Your task to perform on an android device: Open sound settings Image 0: 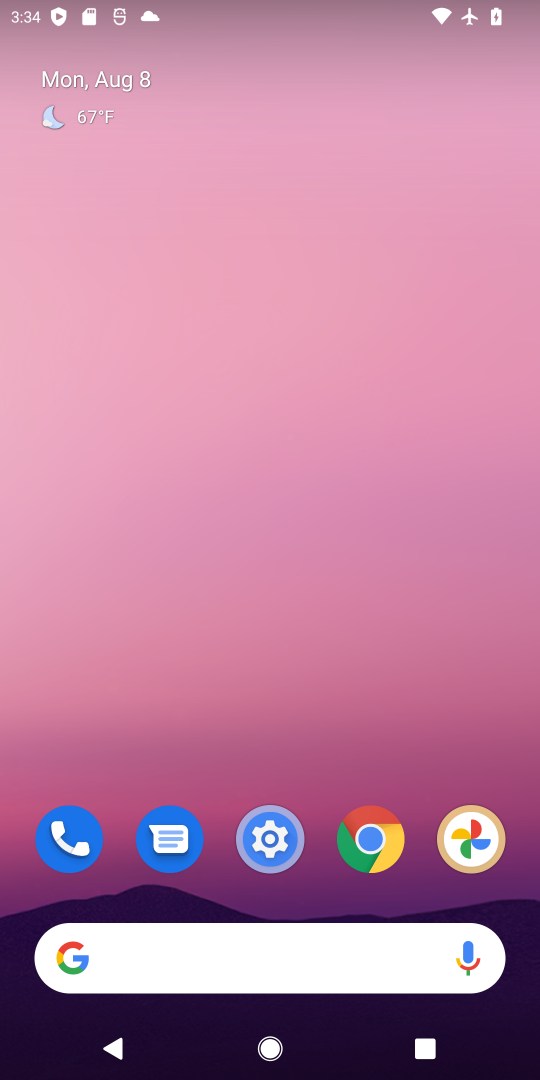
Step 0: press home button
Your task to perform on an android device: Open sound settings Image 1: 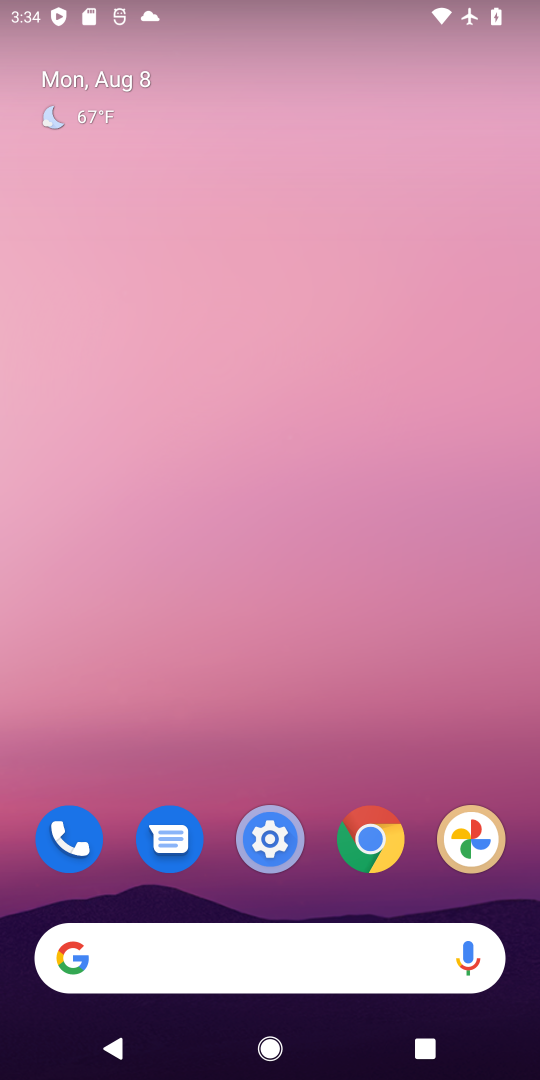
Step 1: drag from (411, 474) to (416, 323)
Your task to perform on an android device: Open sound settings Image 2: 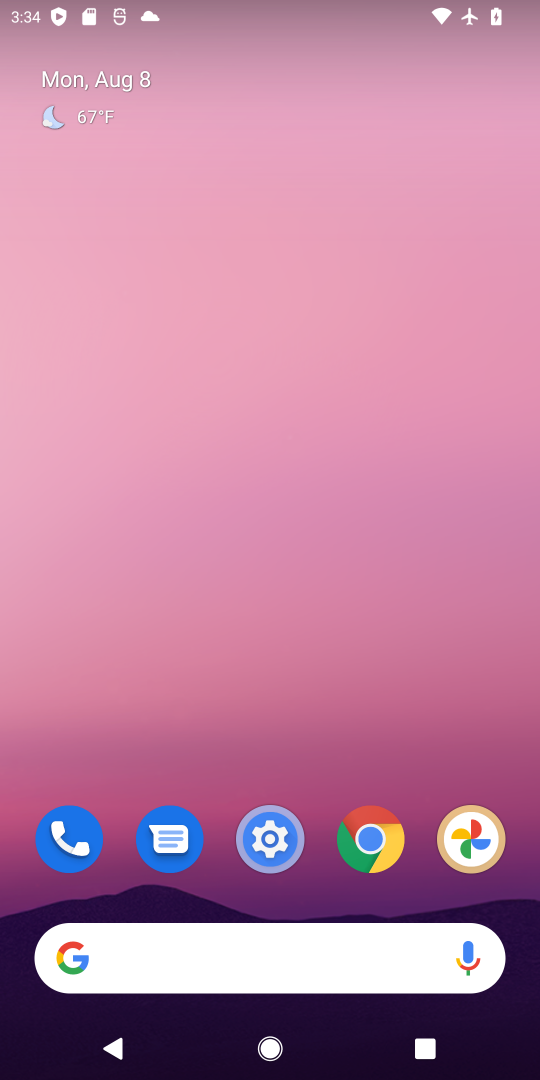
Step 2: drag from (409, 755) to (420, 250)
Your task to perform on an android device: Open sound settings Image 3: 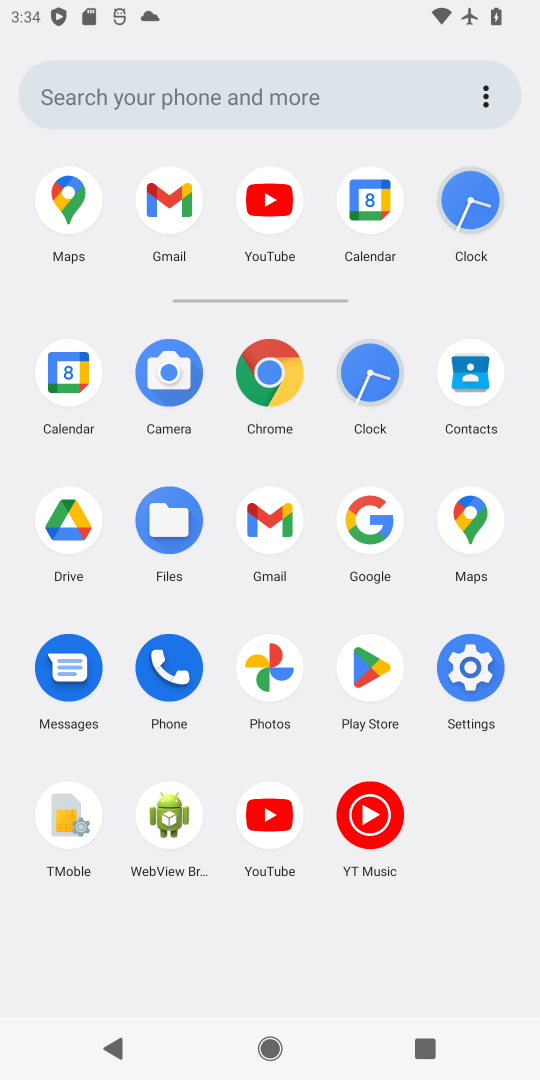
Step 3: click (472, 670)
Your task to perform on an android device: Open sound settings Image 4: 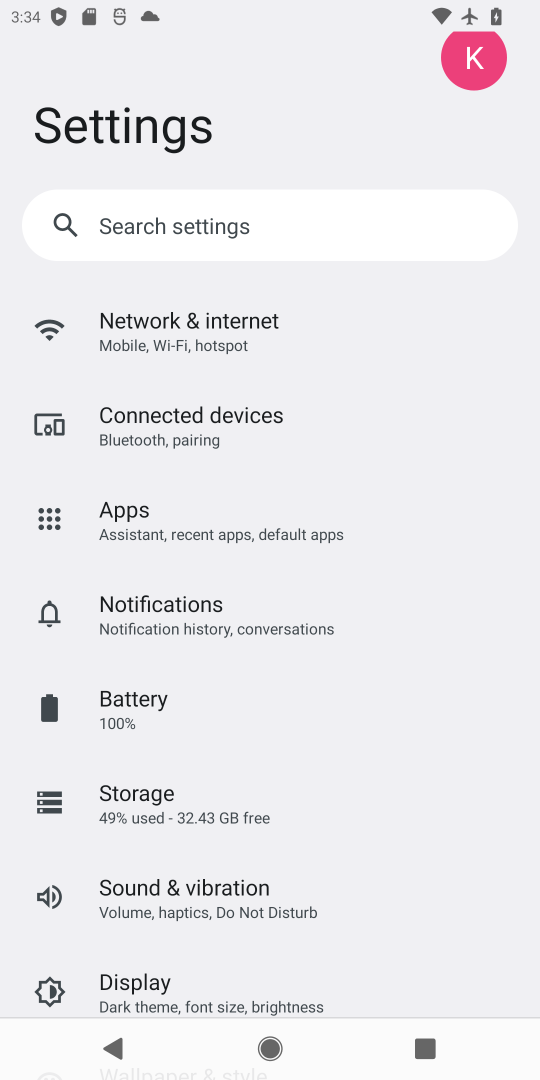
Step 4: drag from (393, 770) to (412, 611)
Your task to perform on an android device: Open sound settings Image 5: 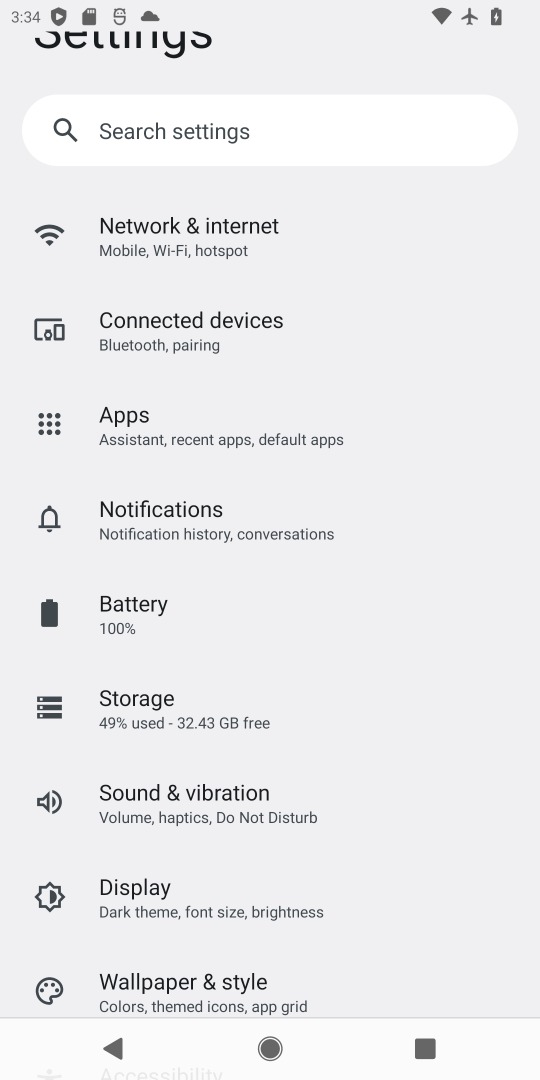
Step 5: drag from (424, 791) to (425, 607)
Your task to perform on an android device: Open sound settings Image 6: 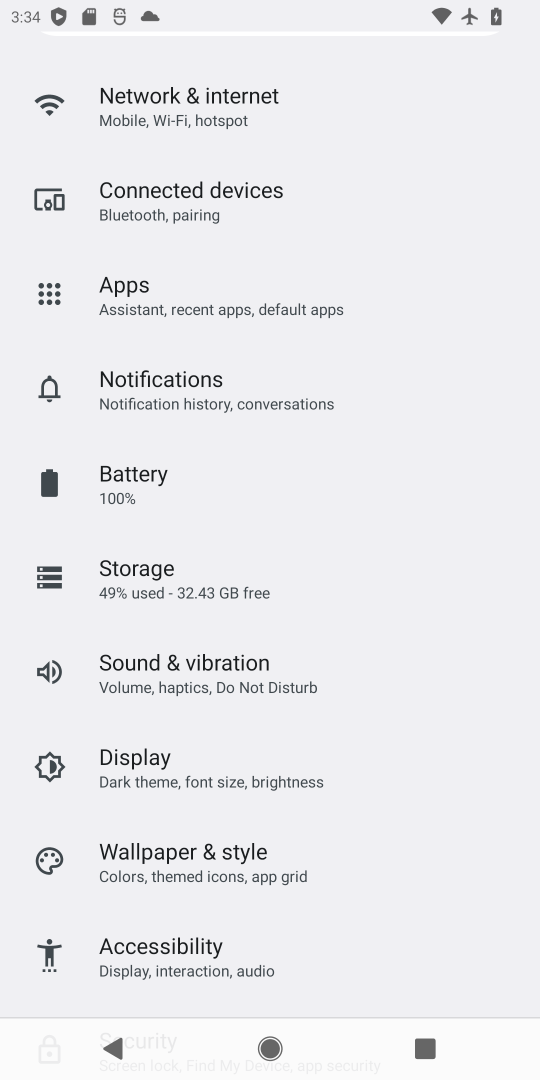
Step 6: drag from (434, 811) to (454, 549)
Your task to perform on an android device: Open sound settings Image 7: 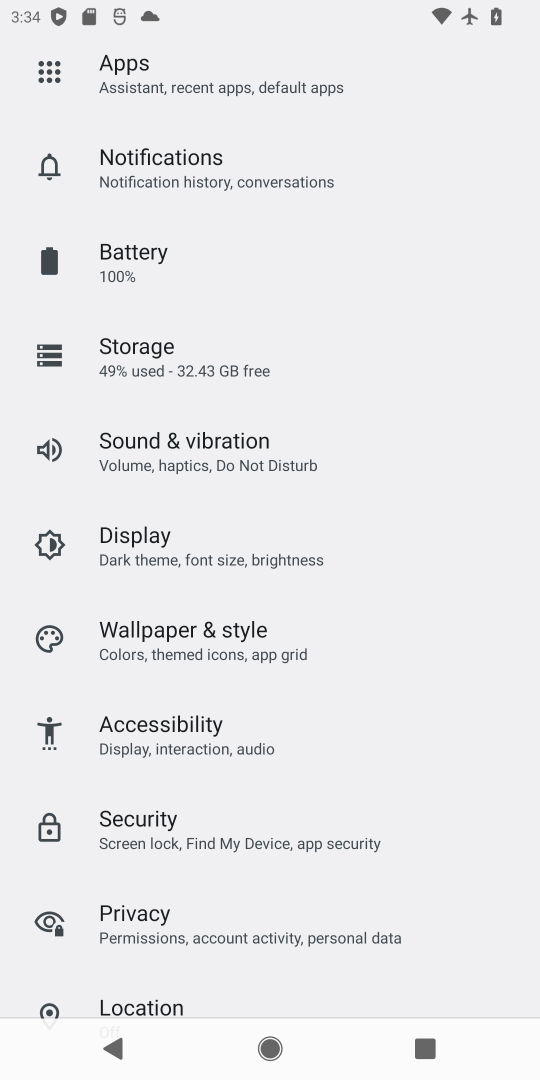
Step 7: drag from (431, 788) to (465, 522)
Your task to perform on an android device: Open sound settings Image 8: 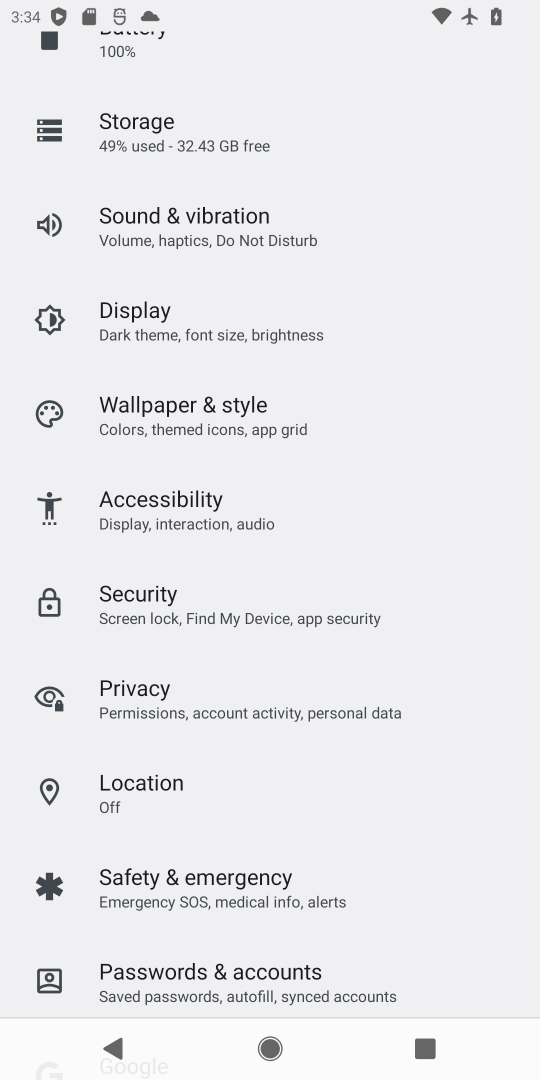
Step 8: drag from (457, 756) to (464, 552)
Your task to perform on an android device: Open sound settings Image 9: 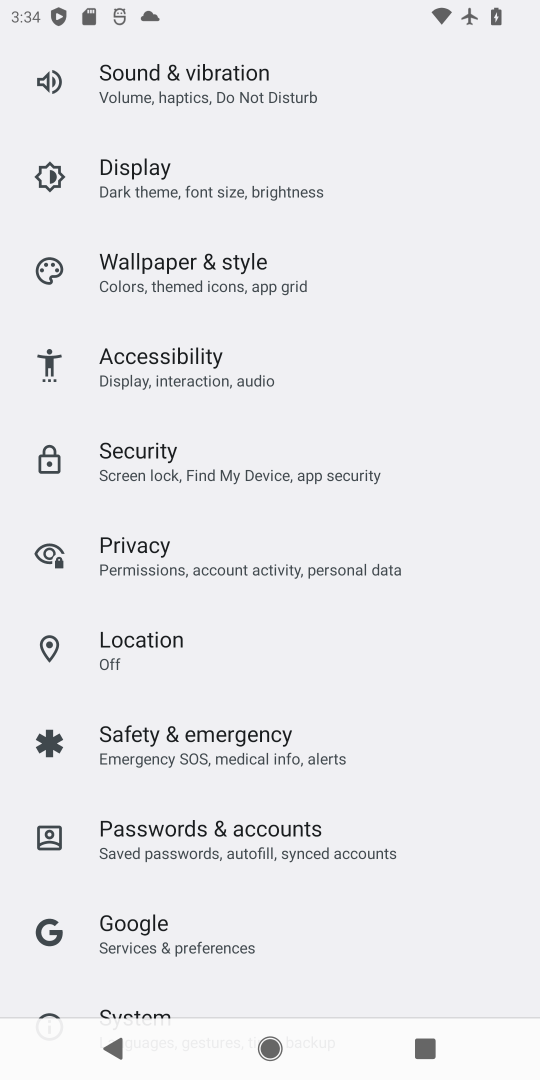
Step 9: drag from (465, 786) to (470, 546)
Your task to perform on an android device: Open sound settings Image 10: 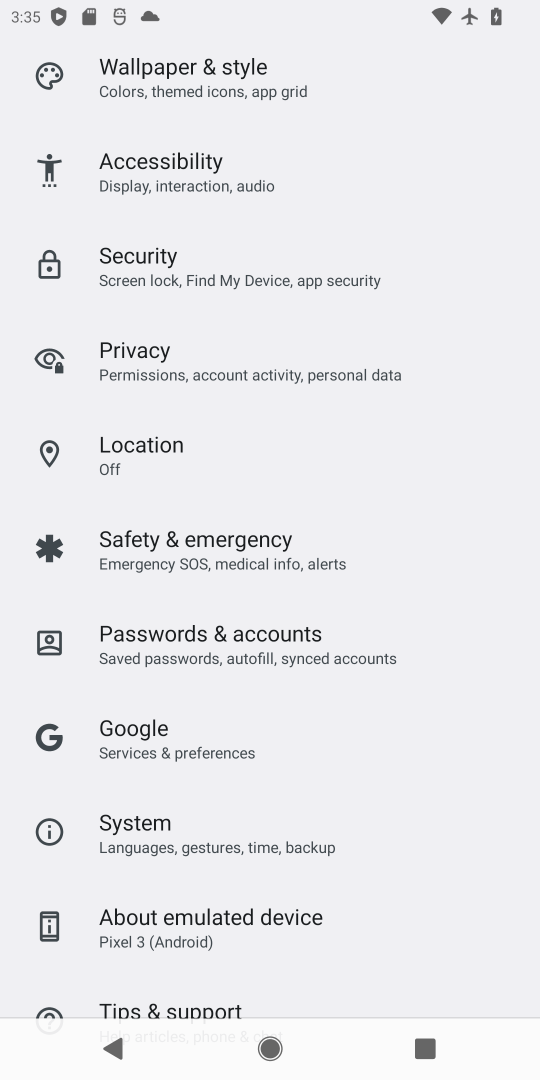
Step 10: drag from (450, 798) to (450, 517)
Your task to perform on an android device: Open sound settings Image 11: 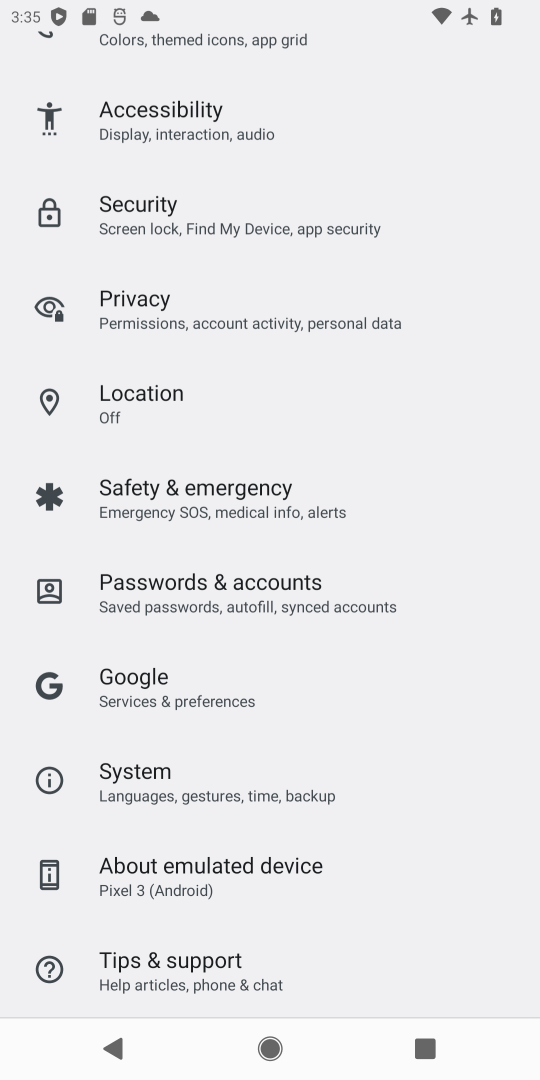
Step 11: drag from (458, 397) to (458, 617)
Your task to perform on an android device: Open sound settings Image 12: 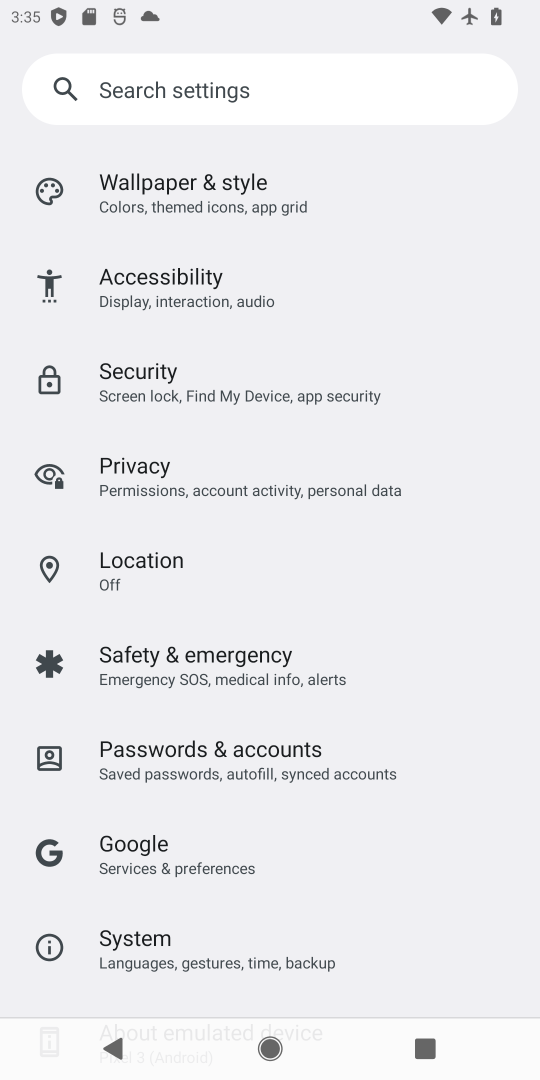
Step 12: drag from (477, 376) to (457, 580)
Your task to perform on an android device: Open sound settings Image 13: 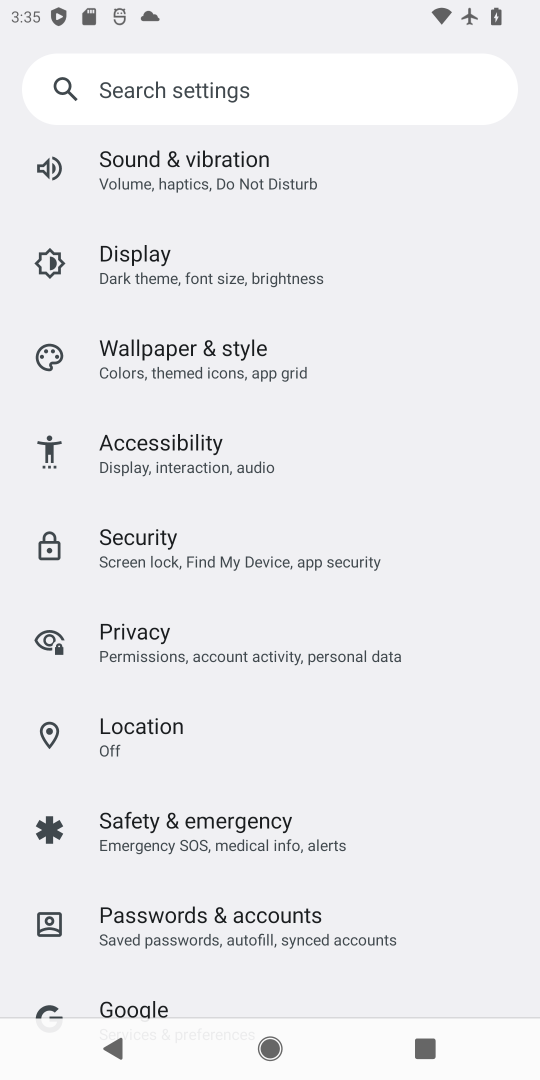
Step 13: drag from (449, 465) to (448, 549)
Your task to perform on an android device: Open sound settings Image 14: 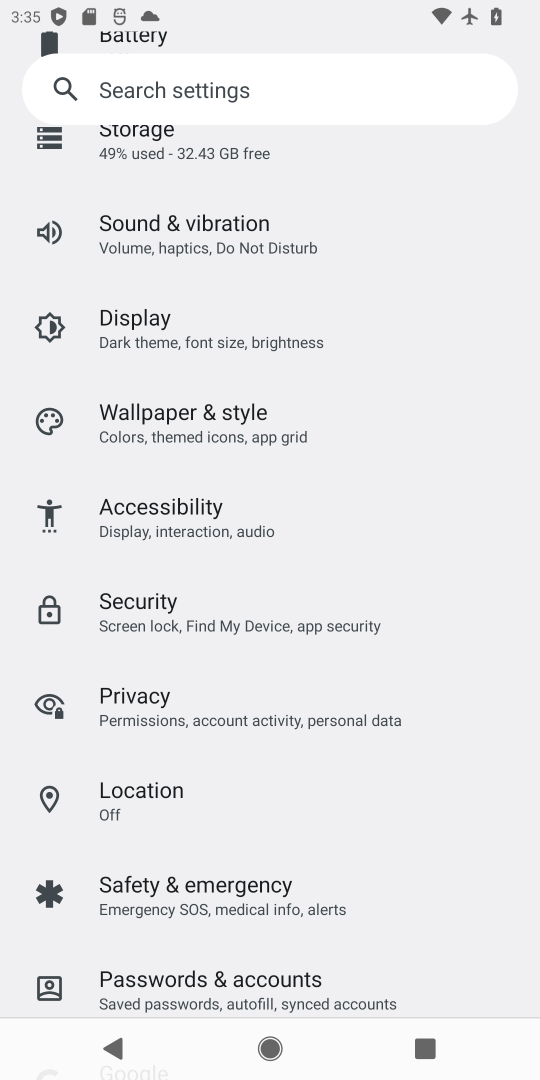
Step 14: drag from (453, 297) to (447, 492)
Your task to perform on an android device: Open sound settings Image 15: 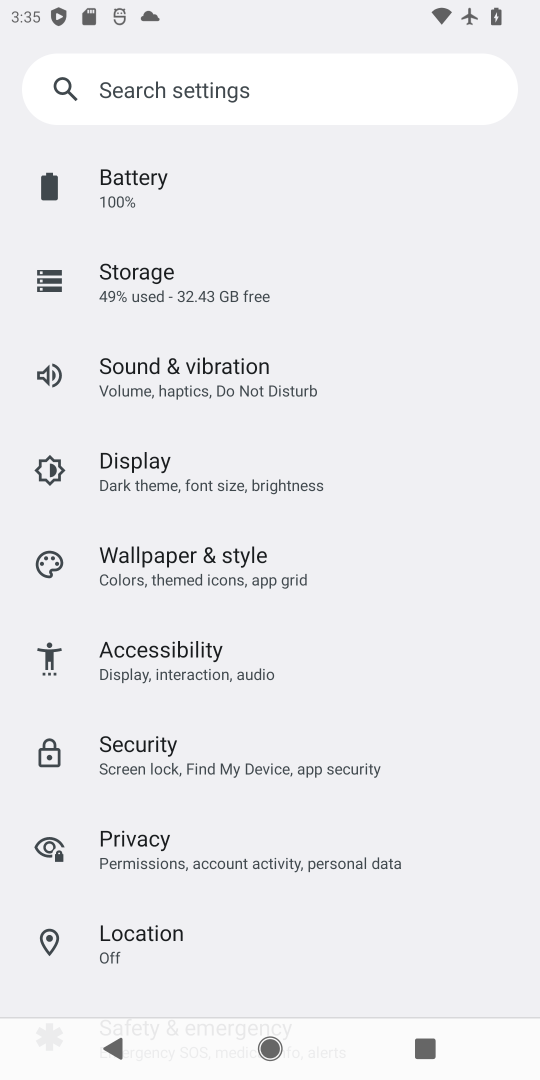
Step 15: drag from (429, 320) to (430, 474)
Your task to perform on an android device: Open sound settings Image 16: 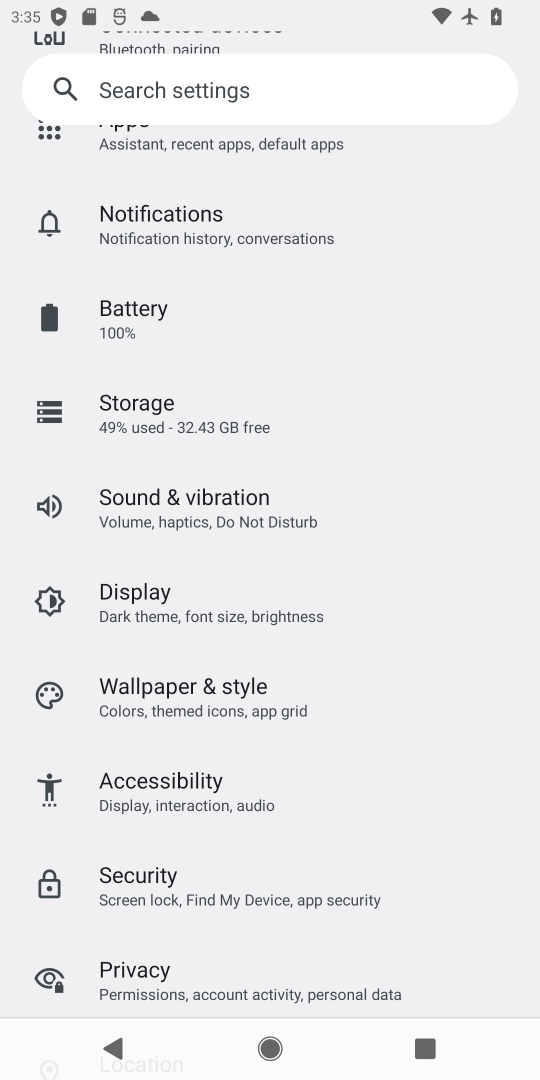
Step 16: drag from (418, 235) to (402, 500)
Your task to perform on an android device: Open sound settings Image 17: 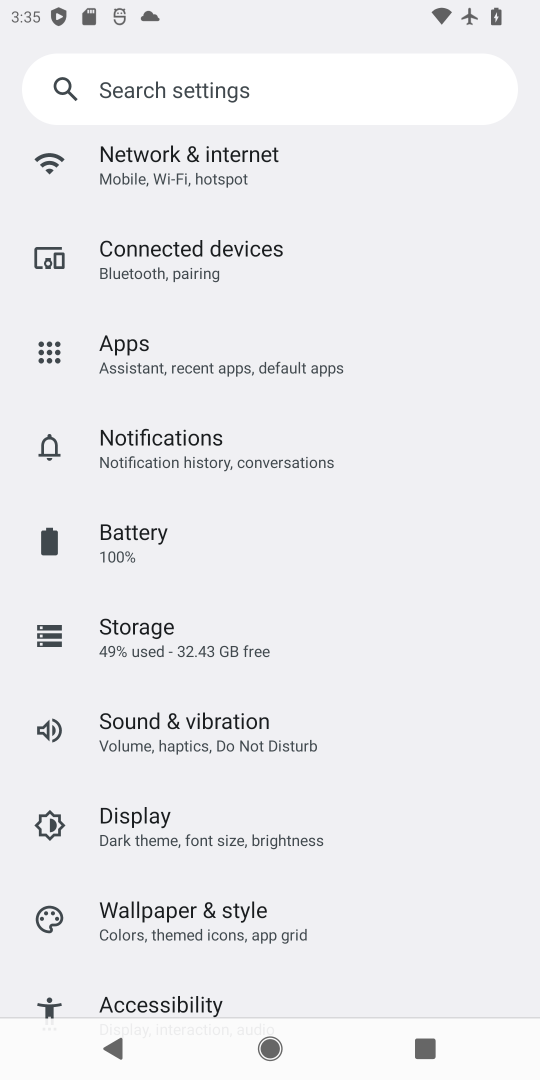
Step 17: click (341, 737)
Your task to perform on an android device: Open sound settings Image 18: 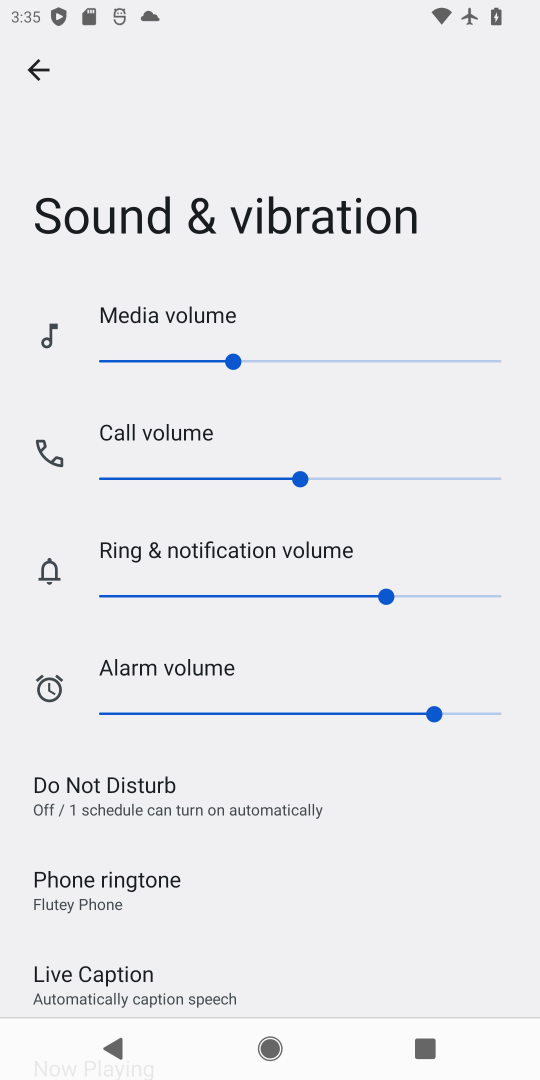
Step 18: task complete